Your task to perform on an android device: Go to wifi settings Image 0: 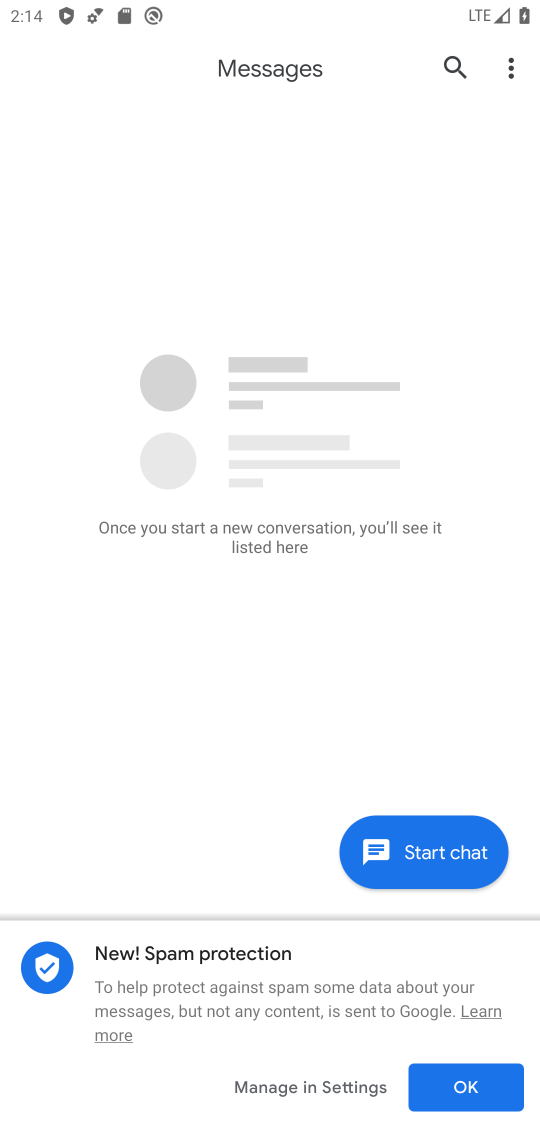
Step 0: press back button
Your task to perform on an android device: Go to wifi settings Image 1: 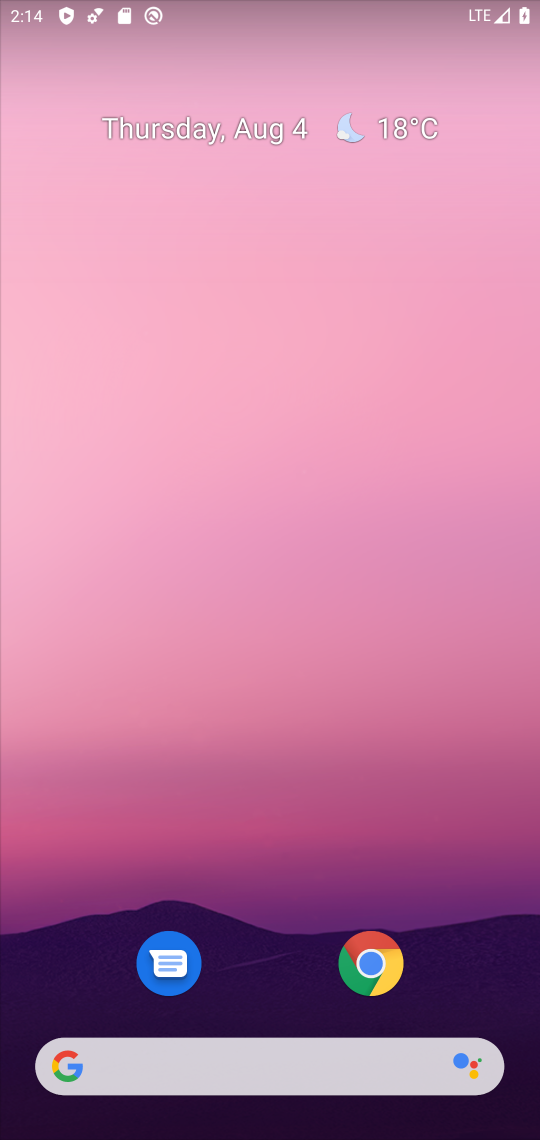
Step 1: drag from (184, 860) to (133, 95)
Your task to perform on an android device: Go to wifi settings Image 2: 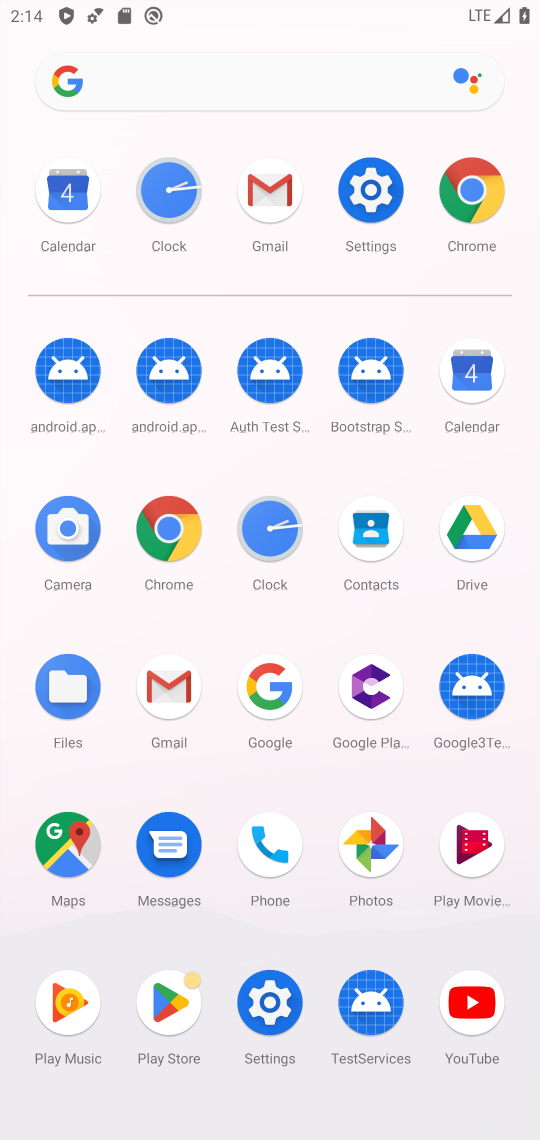
Step 2: click (370, 203)
Your task to perform on an android device: Go to wifi settings Image 3: 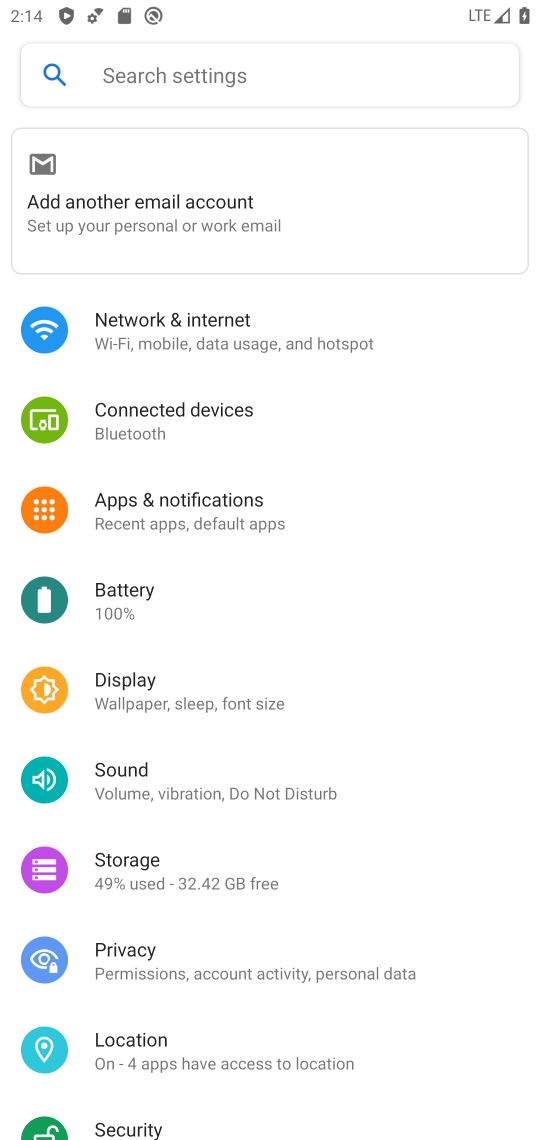
Step 3: click (212, 318)
Your task to perform on an android device: Go to wifi settings Image 4: 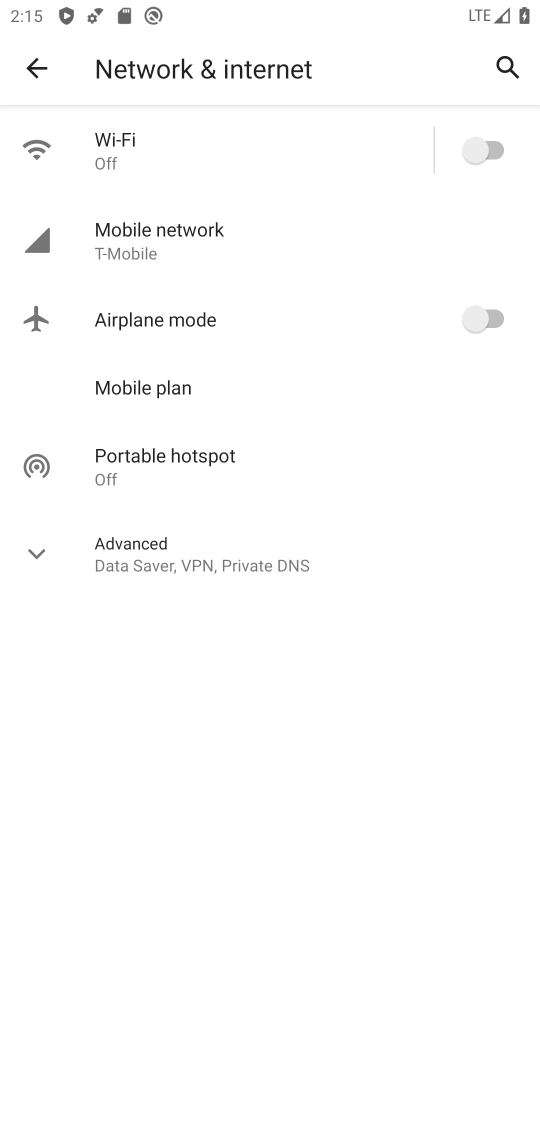
Step 4: click (154, 148)
Your task to perform on an android device: Go to wifi settings Image 5: 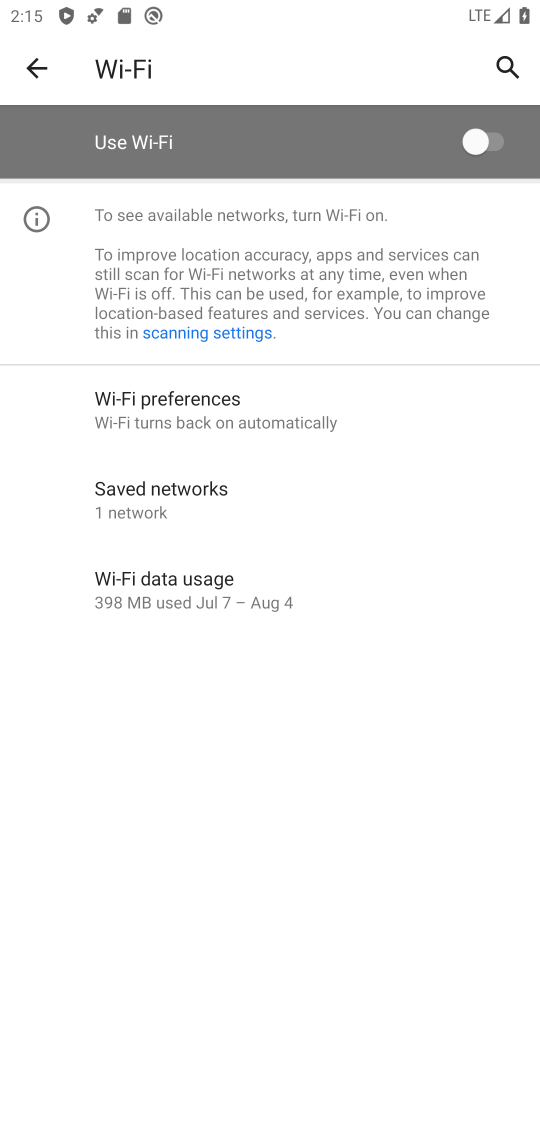
Step 5: task complete